Your task to perform on an android device: Open notification settings Image 0: 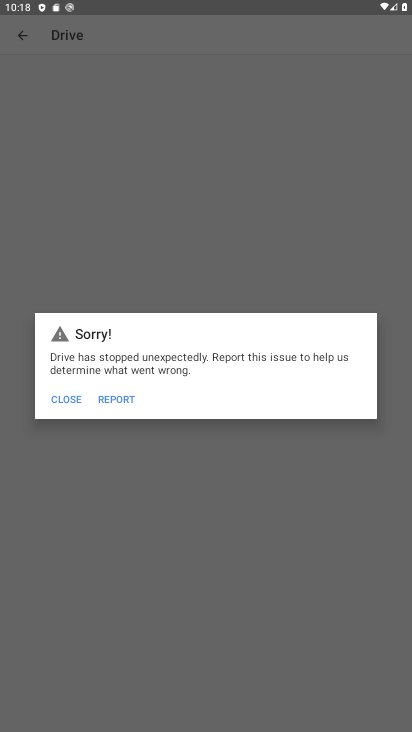
Step 0: press home button
Your task to perform on an android device: Open notification settings Image 1: 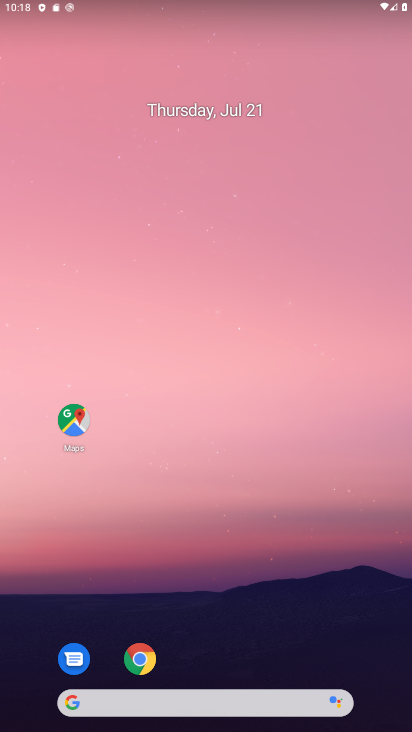
Step 1: drag from (196, 664) to (154, 201)
Your task to perform on an android device: Open notification settings Image 2: 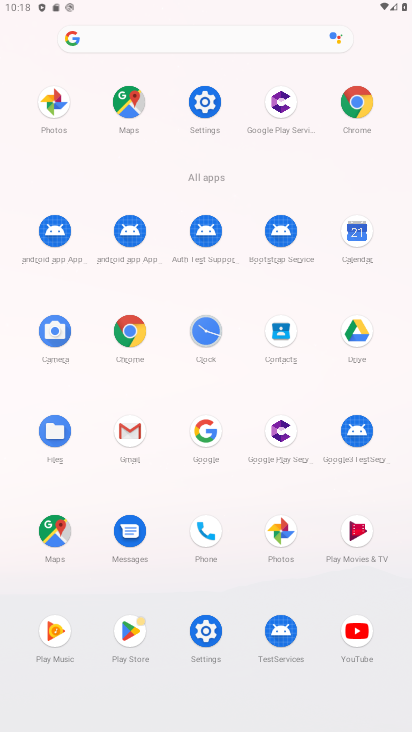
Step 2: click (195, 104)
Your task to perform on an android device: Open notification settings Image 3: 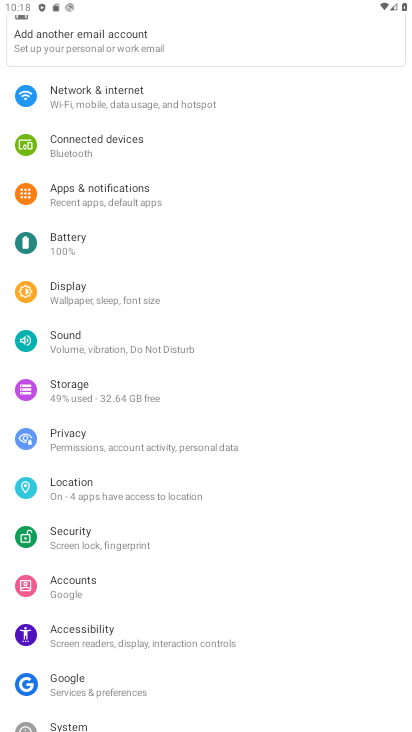
Step 3: click (103, 183)
Your task to perform on an android device: Open notification settings Image 4: 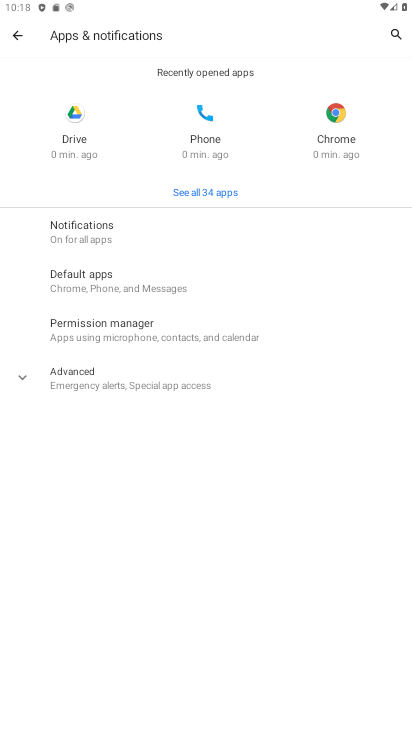
Step 4: click (106, 218)
Your task to perform on an android device: Open notification settings Image 5: 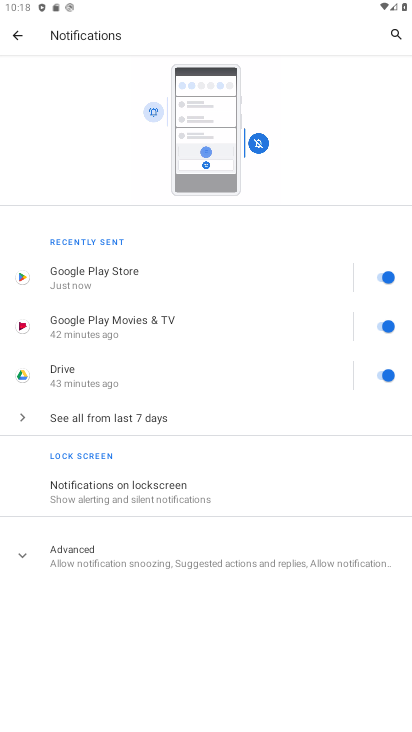
Step 5: task complete